Your task to perform on an android device: Search for Mexican restaurants on Maps Image 0: 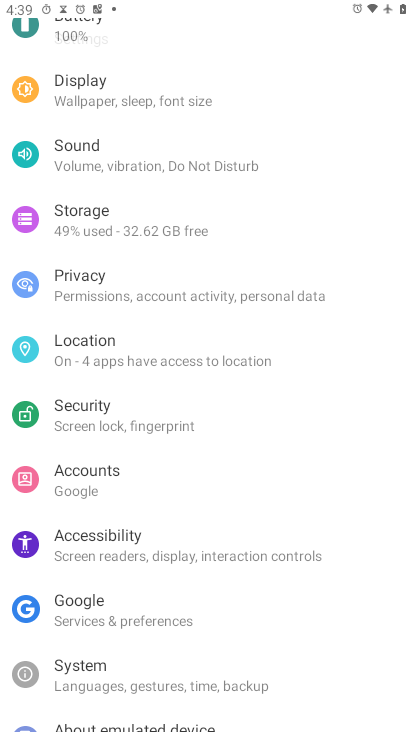
Step 0: press home button
Your task to perform on an android device: Search for Mexican restaurants on Maps Image 1: 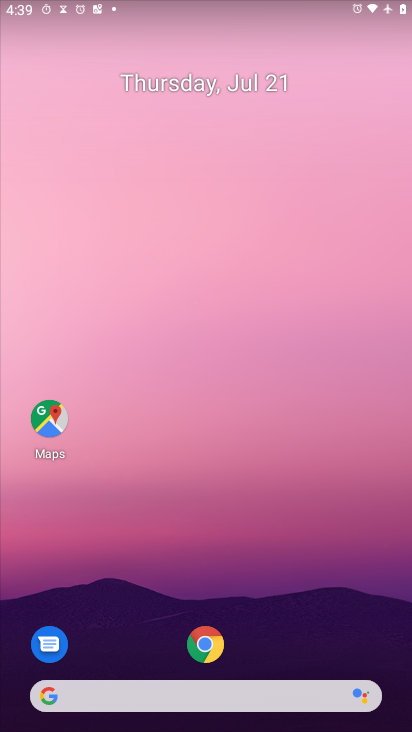
Step 1: drag from (249, 643) to (262, 21)
Your task to perform on an android device: Search for Mexican restaurants on Maps Image 2: 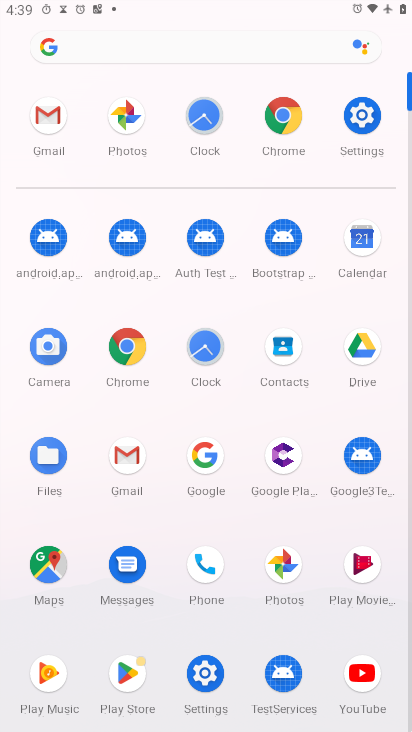
Step 2: click (42, 567)
Your task to perform on an android device: Search for Mexican restaurants on Maps Image 3: 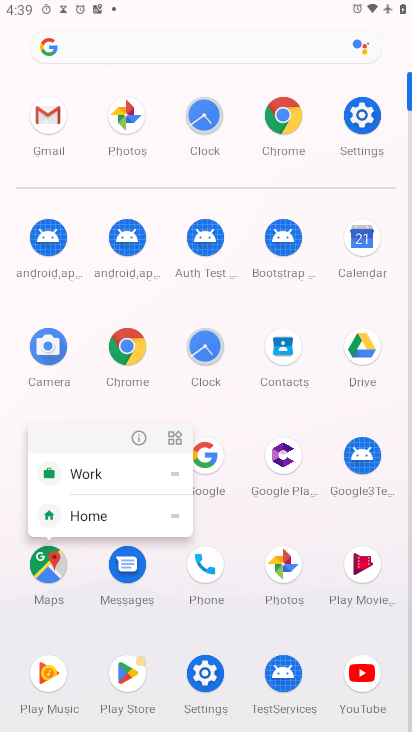
Step 3: click (43, 573)
Your task to perform on an android device: Search for Mexican restaurants on Maps Image 4: 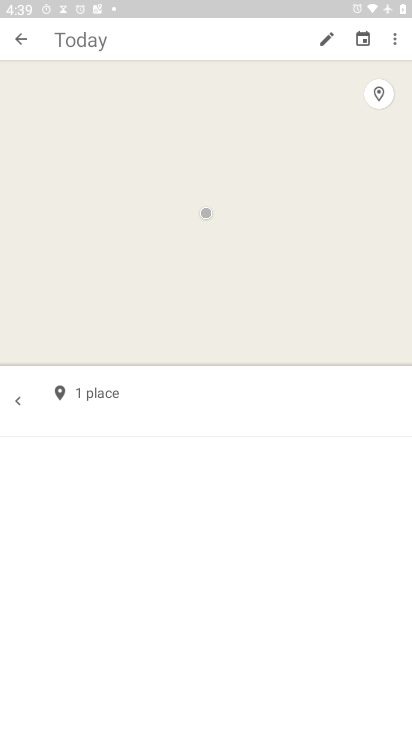
Step 4: click (204, 47)
Your task to perform on an android device: Search for Mexican restaurants on Maps Image 5: 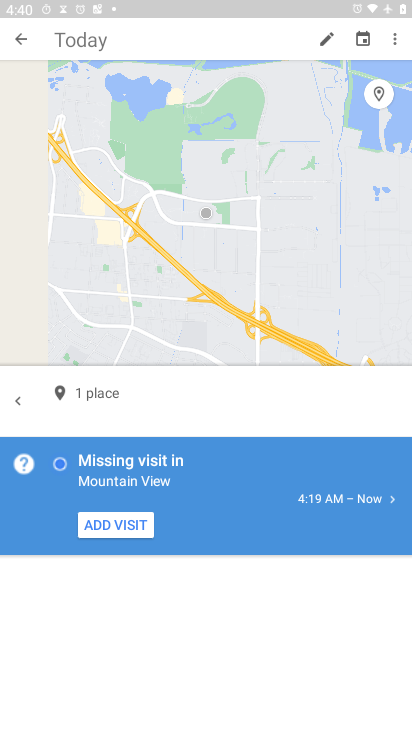
Step 5: click (193, 43)
Your task to perform on an android device: Search for Mexican restaurants on Maps Image 6: 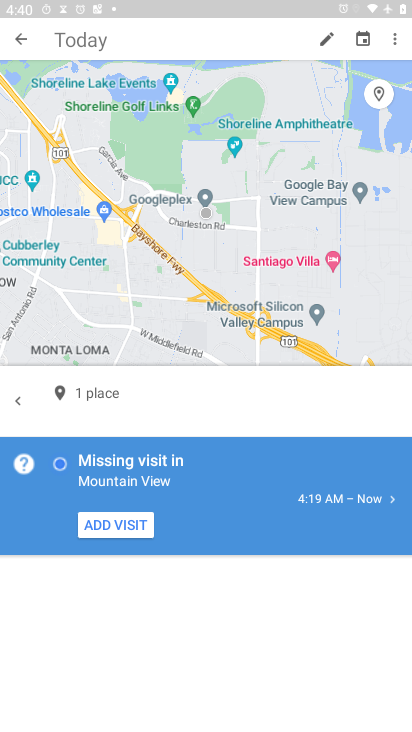
Step 6: click (24, 37)
Your task to perform on an android device: Search for Mexican restaurants on Maps Image 7: 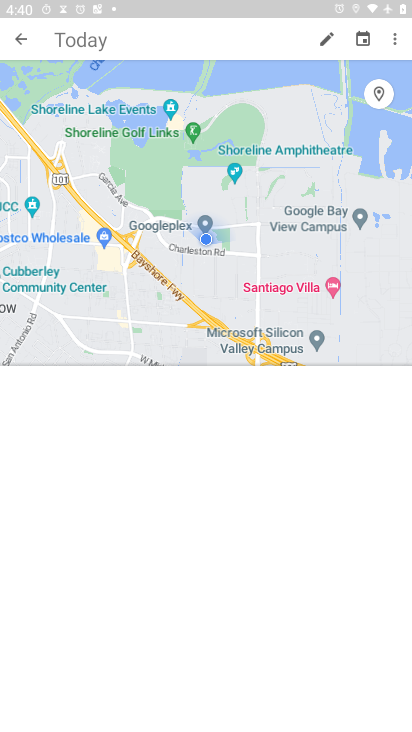
Step 7: click (104, 34)
Your task to perform on an android device: Search for Mexican restaurants on Maps Image 8: 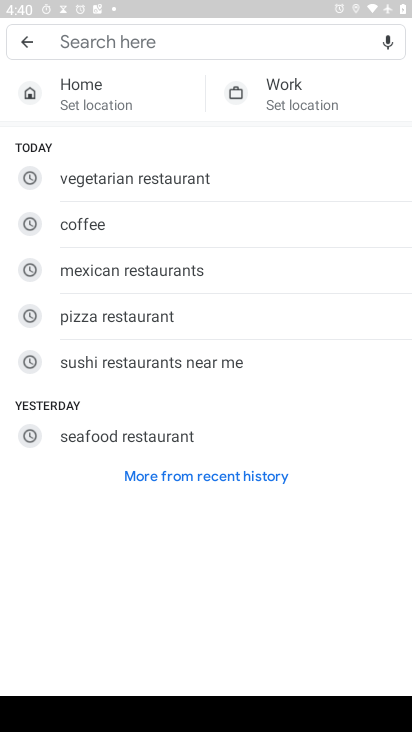
Step 8: click (107, 272)
Your task to perform on an android device: Search for Mexican restaurants on Maps Image 9: 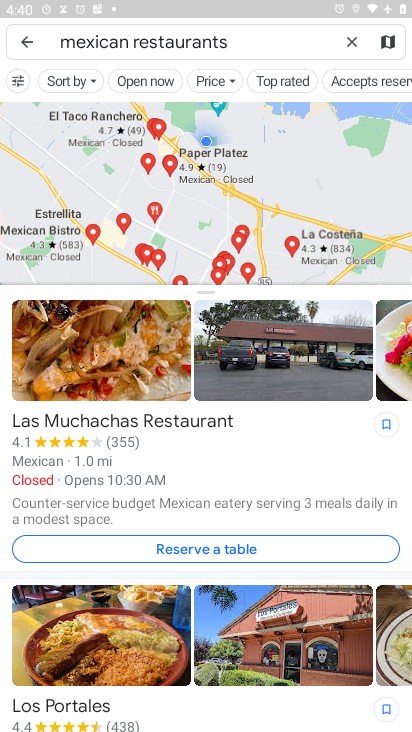
Step 9: task complete